Your task to perform on an android device: turn off sleep mode Image 0: 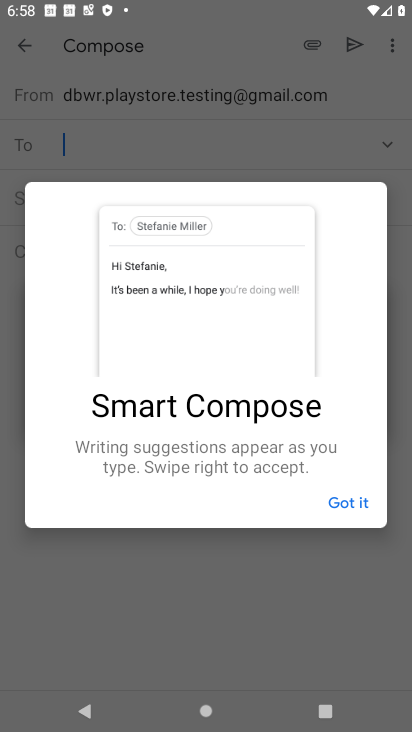
Step 0: press home button
Your task to perform on an android device: turn off sleep mode Image 1: 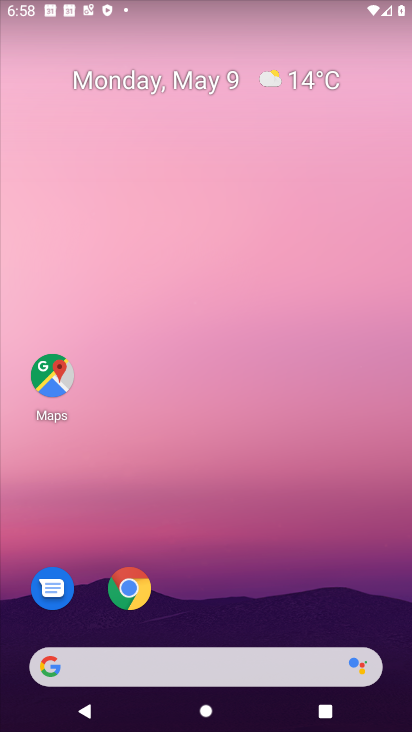
Step 1: drag from (322, 604) to (258, 131)
Your task to perform on an android device: turn off sleep mode Image 2: 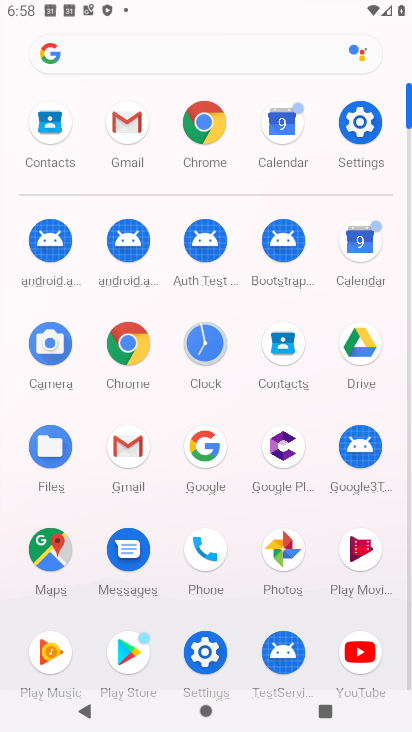
Step 2: click (377, 111)
Your task to perform on an android device: turn off sleep mode Image 3: 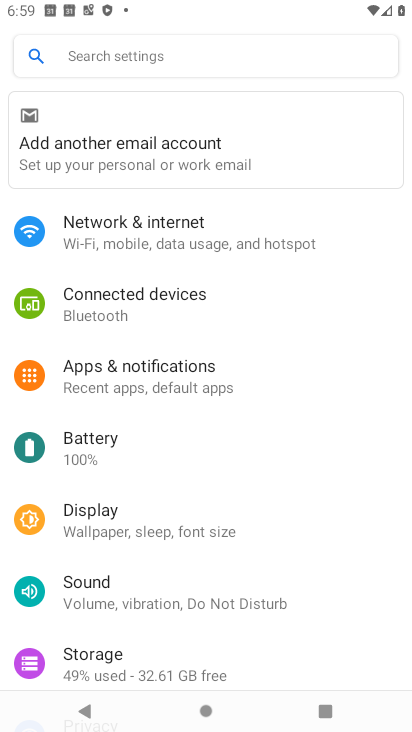
Step 3: task complete